Your task to perform on an android device: Go to Yahoo.com Image 0: 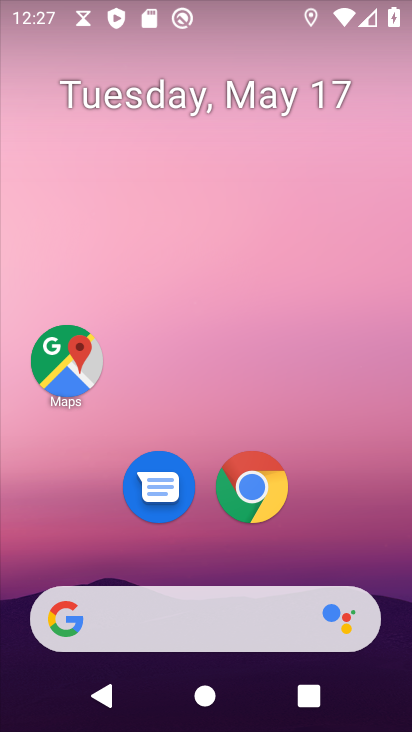
Step 0: drag from (312, 491) to (307, 39)
Your task to perform on an android device: Go to Yahoo.com Image 1: 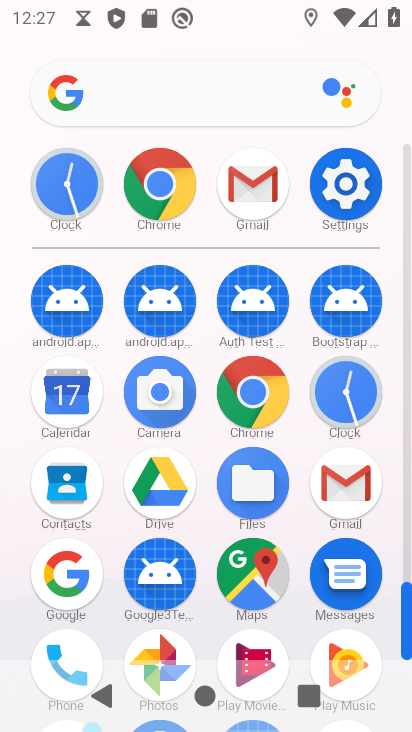
Step 1: drag from (4, 551) to (4, 276)
Your task to perform on an android device: Go to Yahoo.com Image 2: 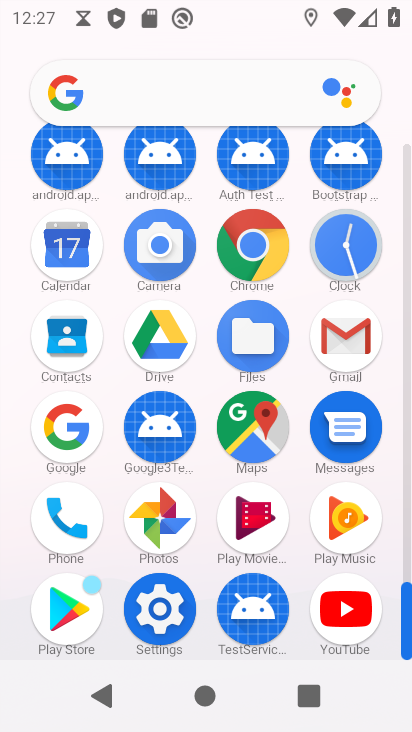
Step 2: click (248, 234)
Your task to perform on an android device: Go to Yahoo.com Image 3: 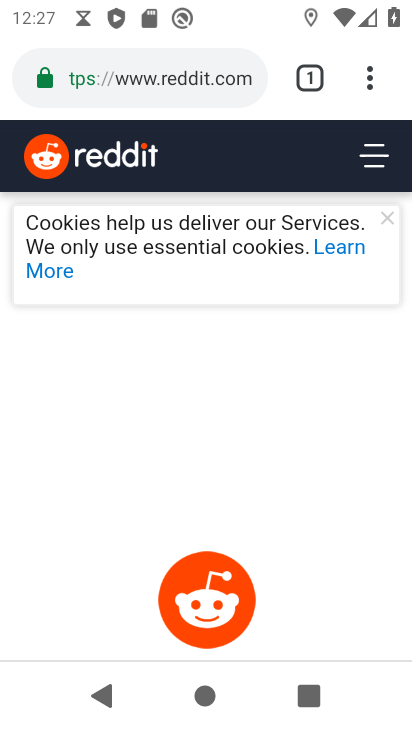
Step 3: click (164, 75)
Your task to perform on an android device: Go to Yahoo.com Image 4: 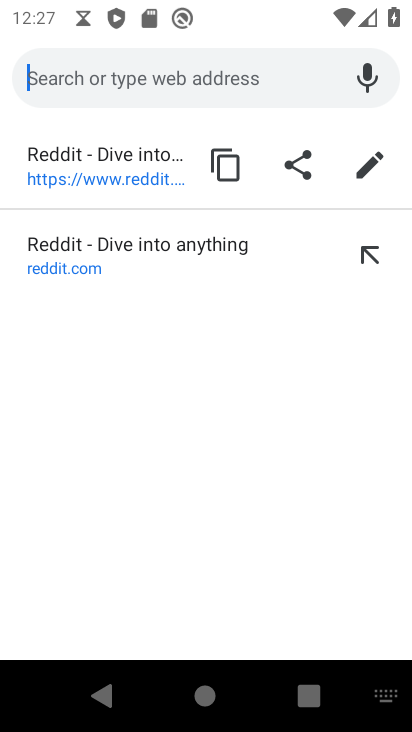
Step 4: type "Yahoo.com"
Your task to perform on an android device: Go to Yahoo.com Image 5: 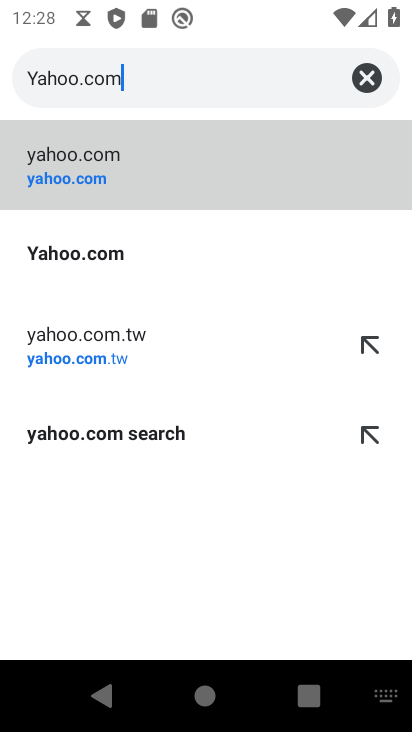
Step 5: type ""
Your task to perform on an android device: Go to Yahoo.com Image 6: 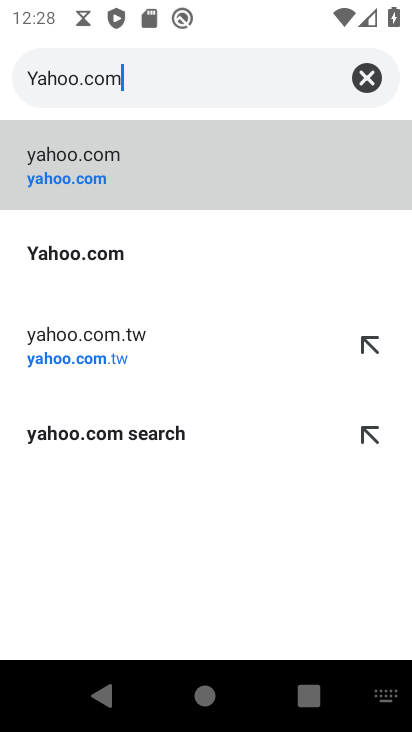
Step 6: click (108, 163)
Your task to perform on an android device: Go to Yahoo.com Image 7: 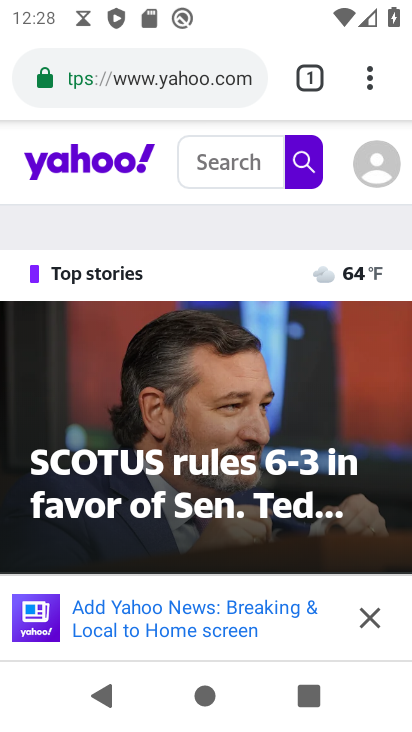
Step 7: task complete